Your task to perform on an android device: check the backup settings in the google photos Image 0: 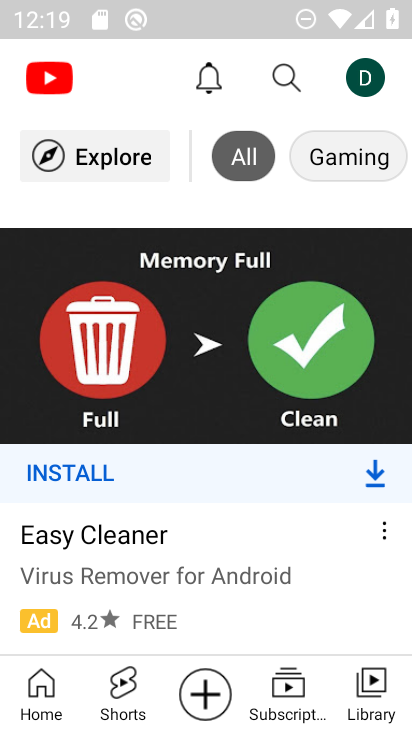
Step 0: press home button
Your task to perform on an android device: check the backup settings in the google photos Image 1: 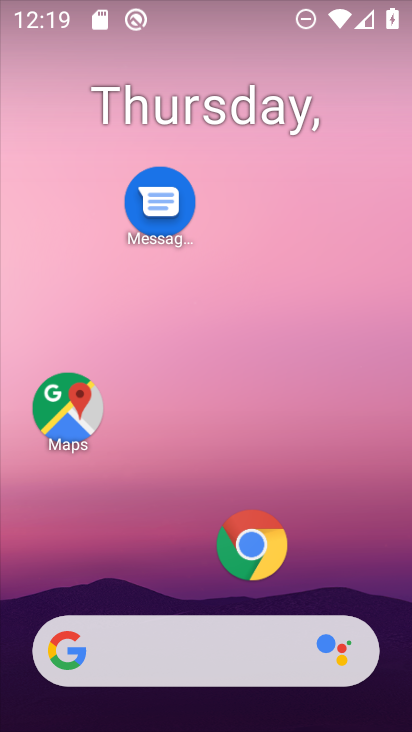
Step 1: drag from (160, 591) to (256, 246)
Your task to perform on an android device: check the backup settings in the google photos Image 2: 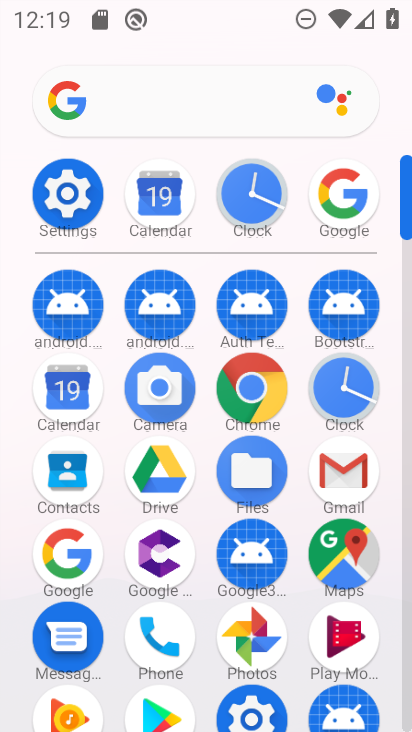
Step 2: click (245, 653)
Your task to perform on an android device: check the backup settings in the google photos Image 3: 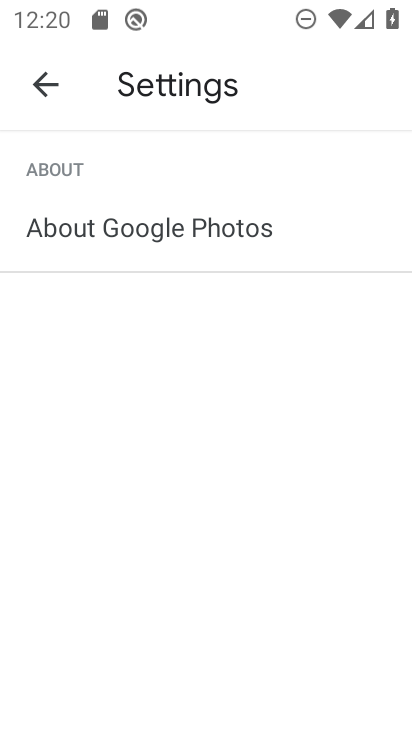
Step 3: click (53, 86)
Your task to perform on an android device: check the backup settings in the google photos Image 4: 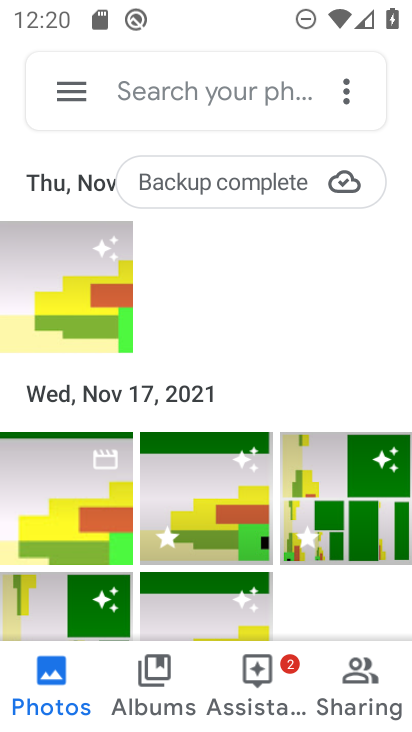
Step 4: click (344, 96)
Your task to perform on an android device: check the backup settings in the google photos Image 5: 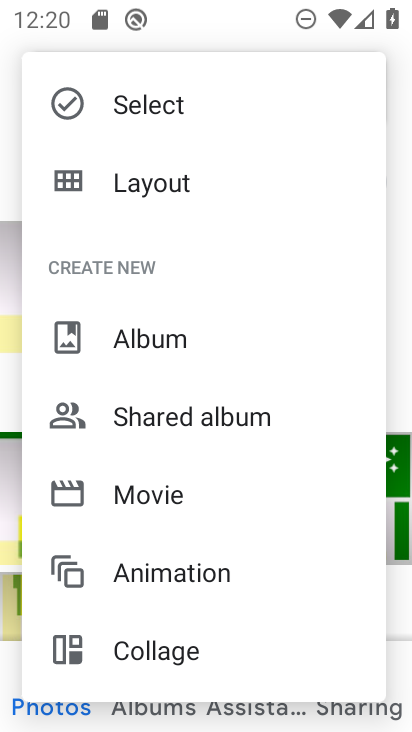
Step 5: click (11, 308)
Your task to perform on an android device: check the backup settings in the google photos Image 6: 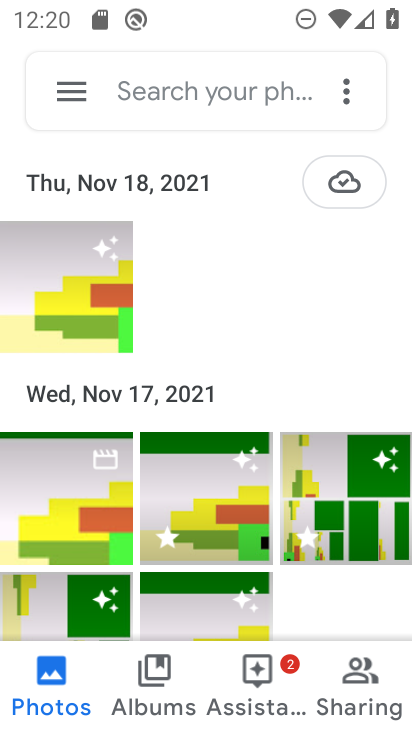
Step 6: click (53, 82)
Your task to perform on an android device: check the backup settings in the google photos Image 7: 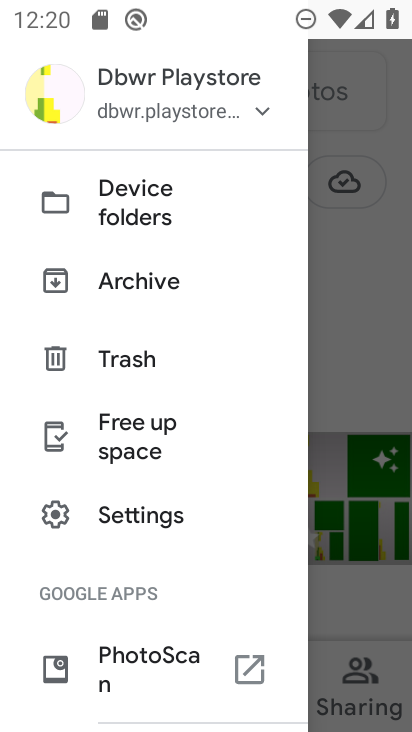
Step 7: click (165, 511)
Your task to perform on an android device: check the backup settings in the google photos Image 8: 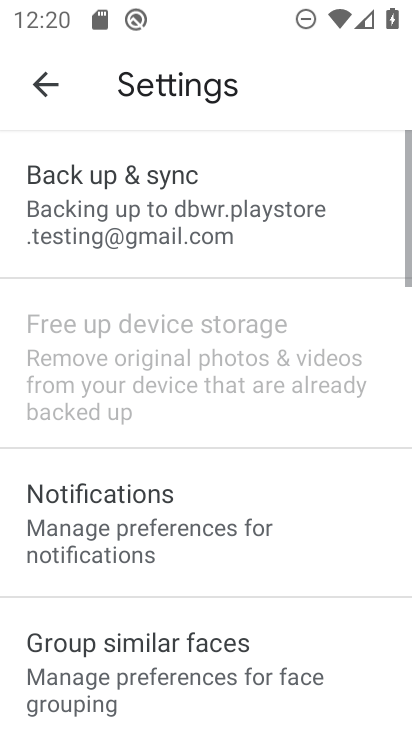
Step 8: click (105, 208)
Your task to perform on an android device: check the backup settings in the google photos Image 9: 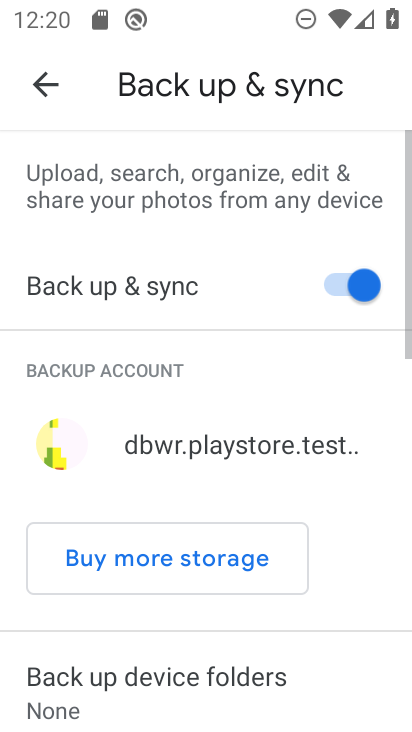
Step 9: task complete